Your task to perform on an android device: toggle priority inbox in the gmail app Image 0: 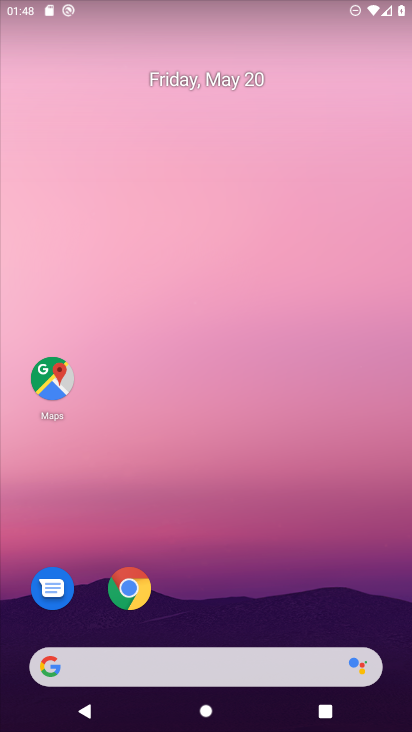
Step 0: drag from (385, 616) to (329, 105)
Your task to perform on an android device: toggle priority inbox in the gmail app Image 1: 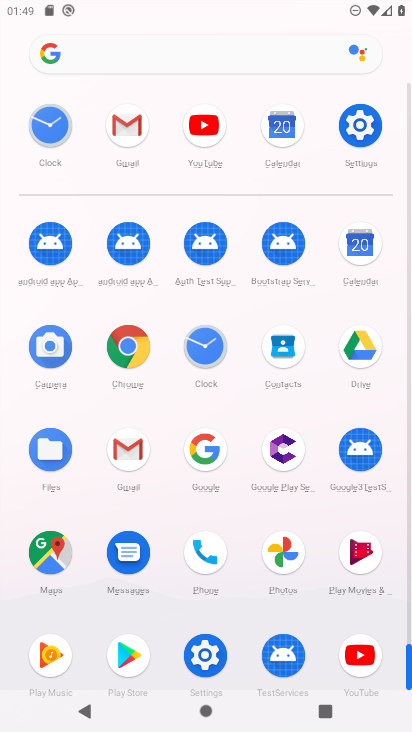
Step 1: click (124, 448)
Your task to perform on an android device: toggle priority inbox in the gmail app Image 2: 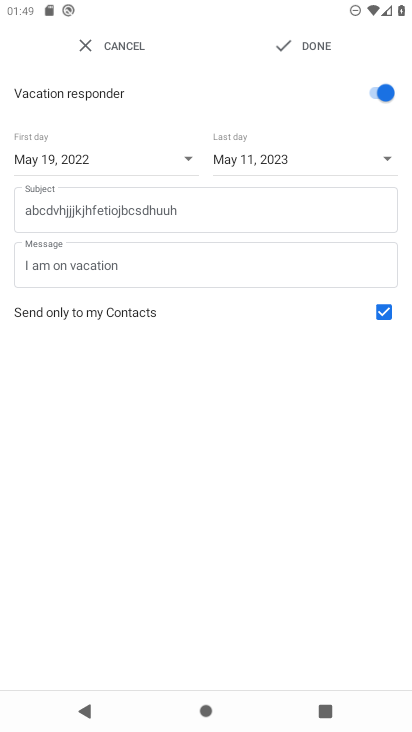
Step 2: press back button
Your task to perform on an android device: toggle priority inbox in the gmail app Image 3: 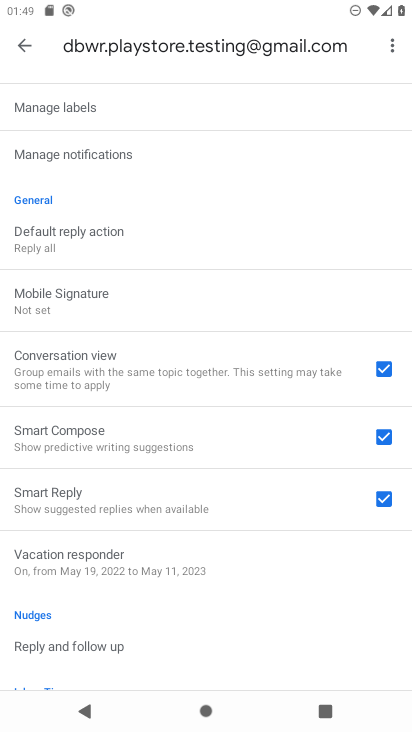
Step 3: drag from (266, 173) to (225, 508)
Your task to perform on an android device: toggle priority inbox in the gmail app Image 4: 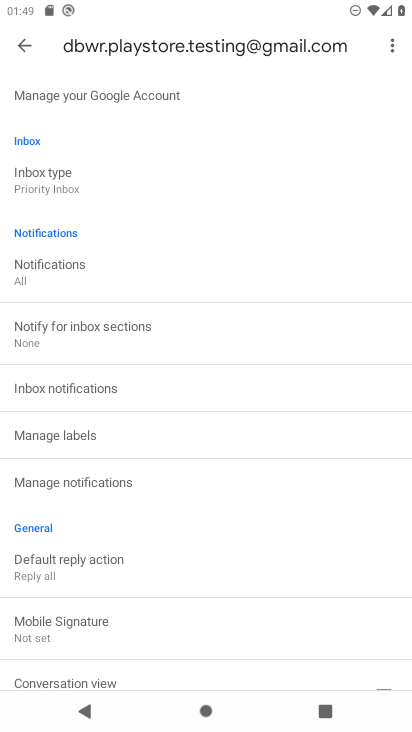
Step 4: drag from (238, 231) to (231, 450)
Your task to perform on an android device: toggle priority inbox in the gmail app Image 5: 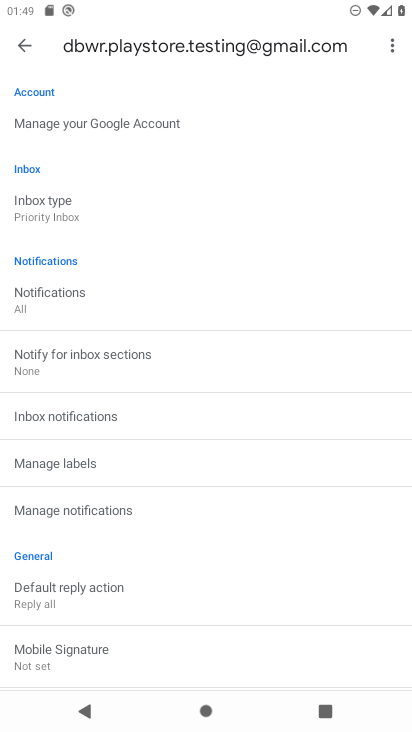
Step 5: click (60, 203)
Your task to perform on an android device: toggle priority inbox in the gmail app Image 6: 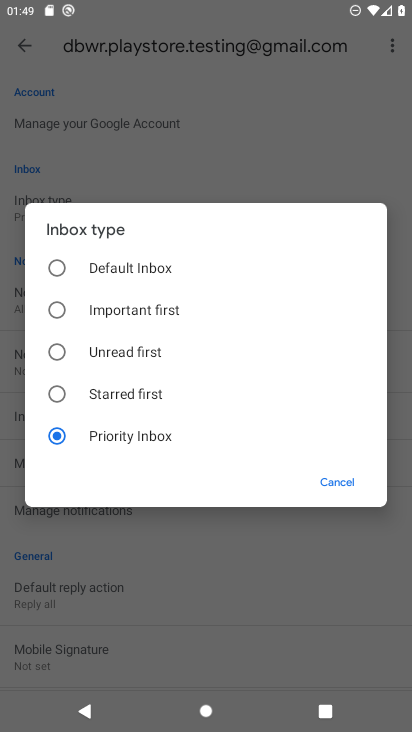
Step 6: click (53, 258)
Your task to perform on an android device: toggle priority inbox in the gmail app Image 7: 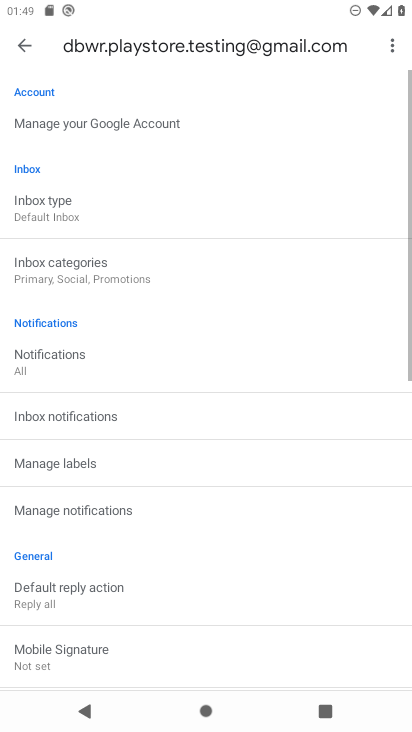
Step 7: task complete